Your task to perform on an android device: turn off translation in the chrome app Image 0: 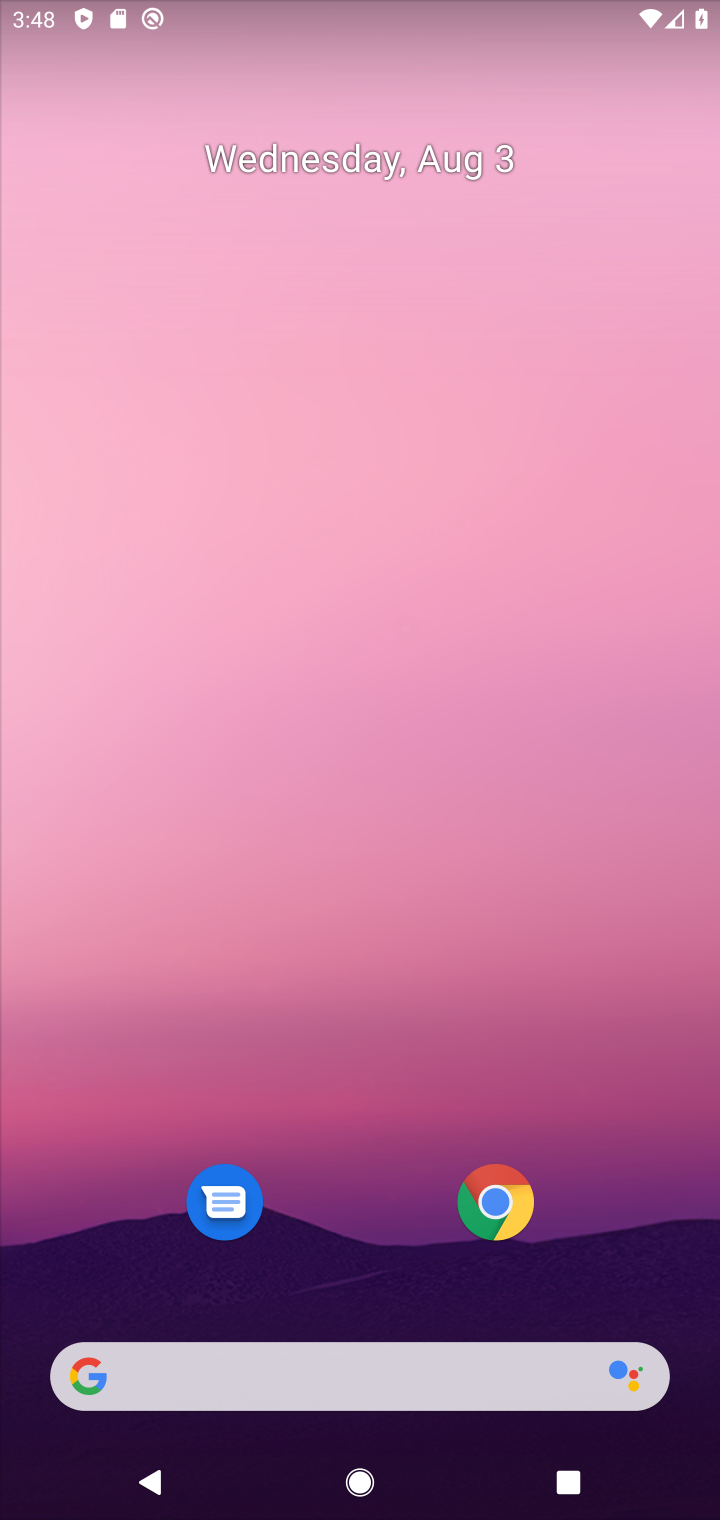
Step 0: click (480, 1199)
Your task to perform on an android device: turn off translation in the chrome app Image 1: 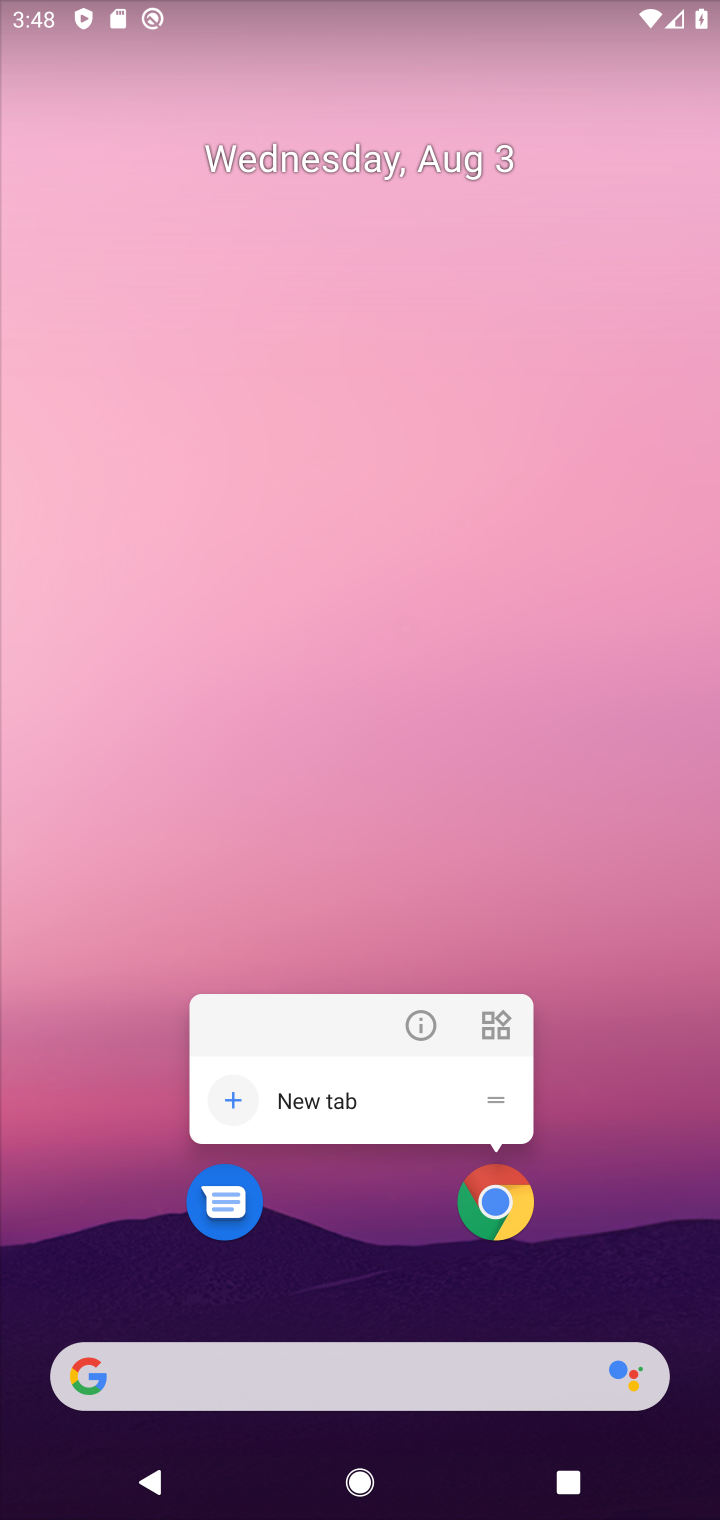
Step 1: click (457, 1185)
Your task to perform on an android device: turn off translation in the chrome app Image 2: 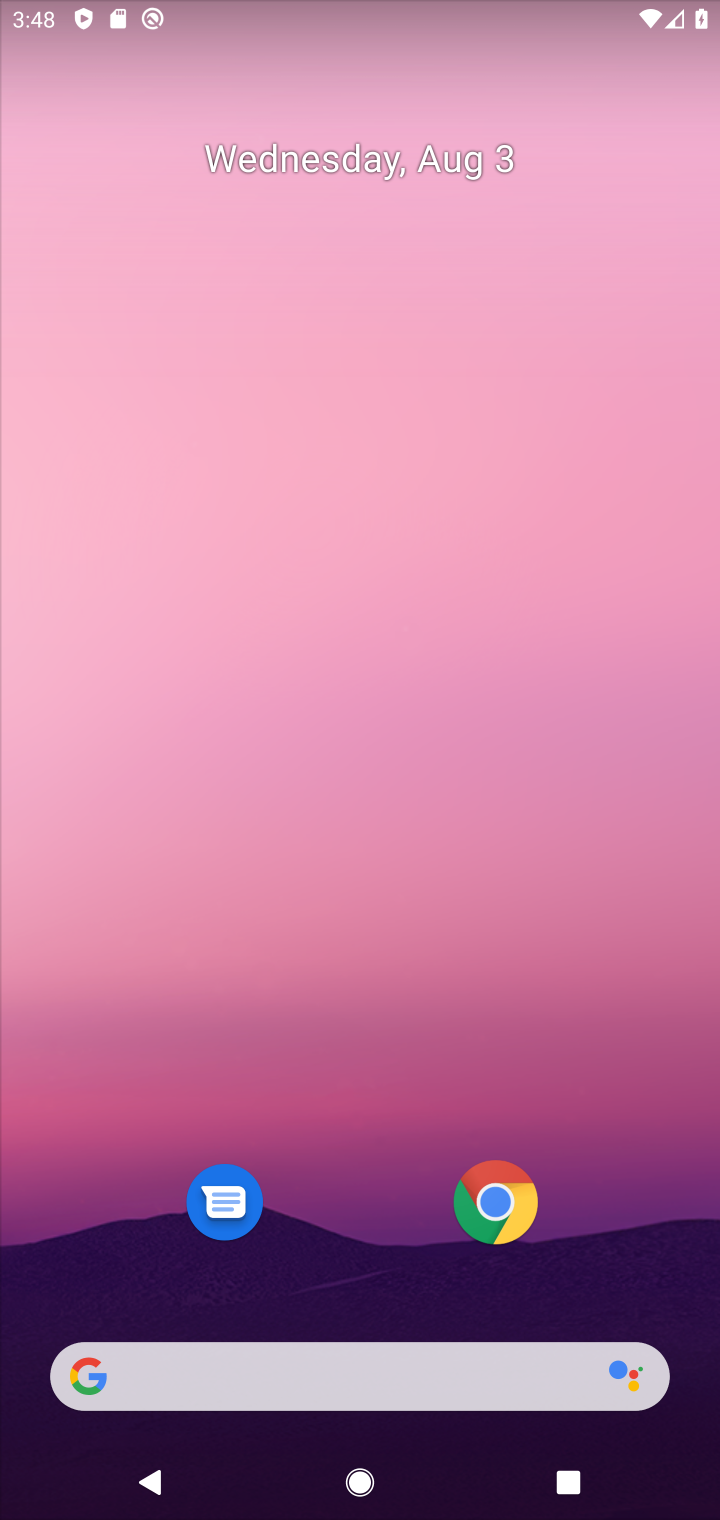
Step 2: click (497, 1192)
Your task to perform on an android device: turn off translation in the chrome app Image 3: 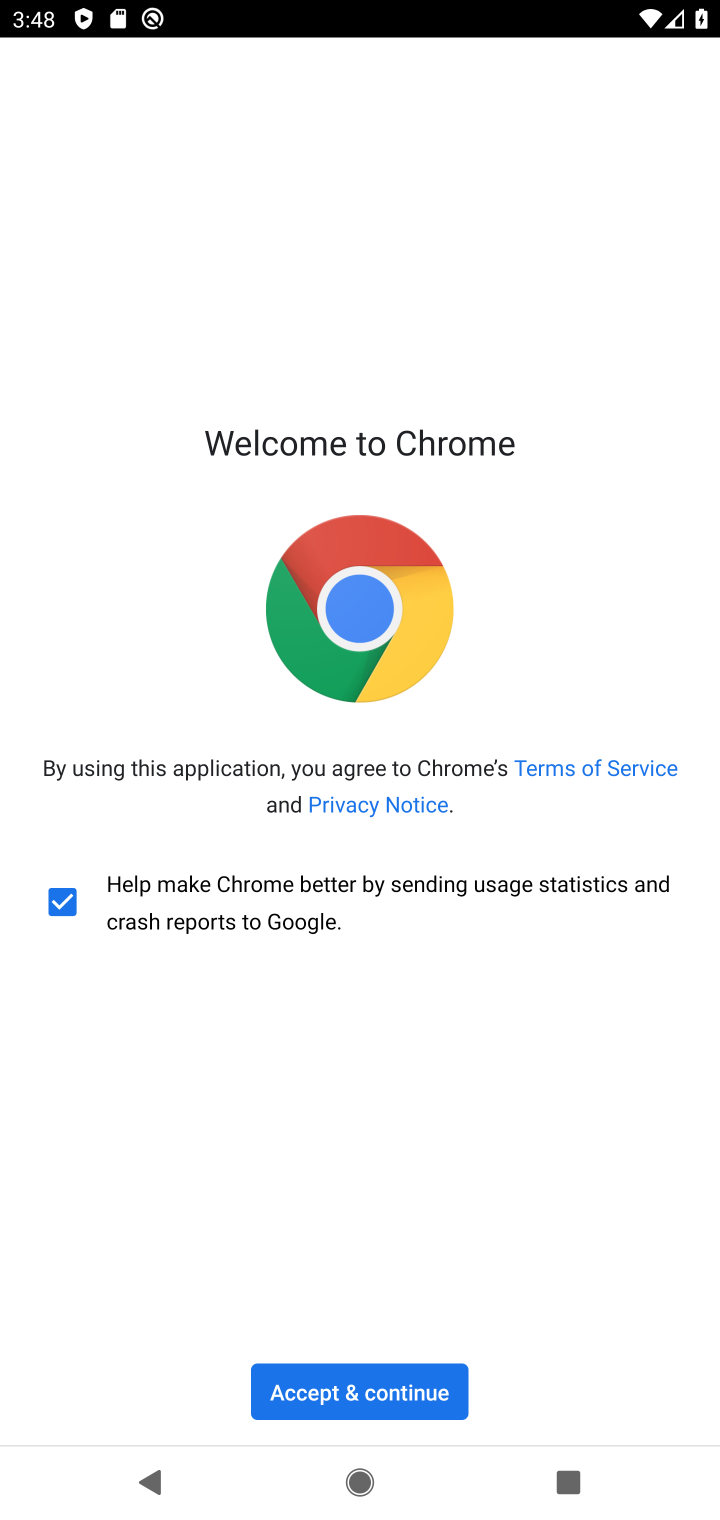
Step 3: click (321, 1357)
Your task to perform on an android device: turn off translation in the chrome app Image 4: 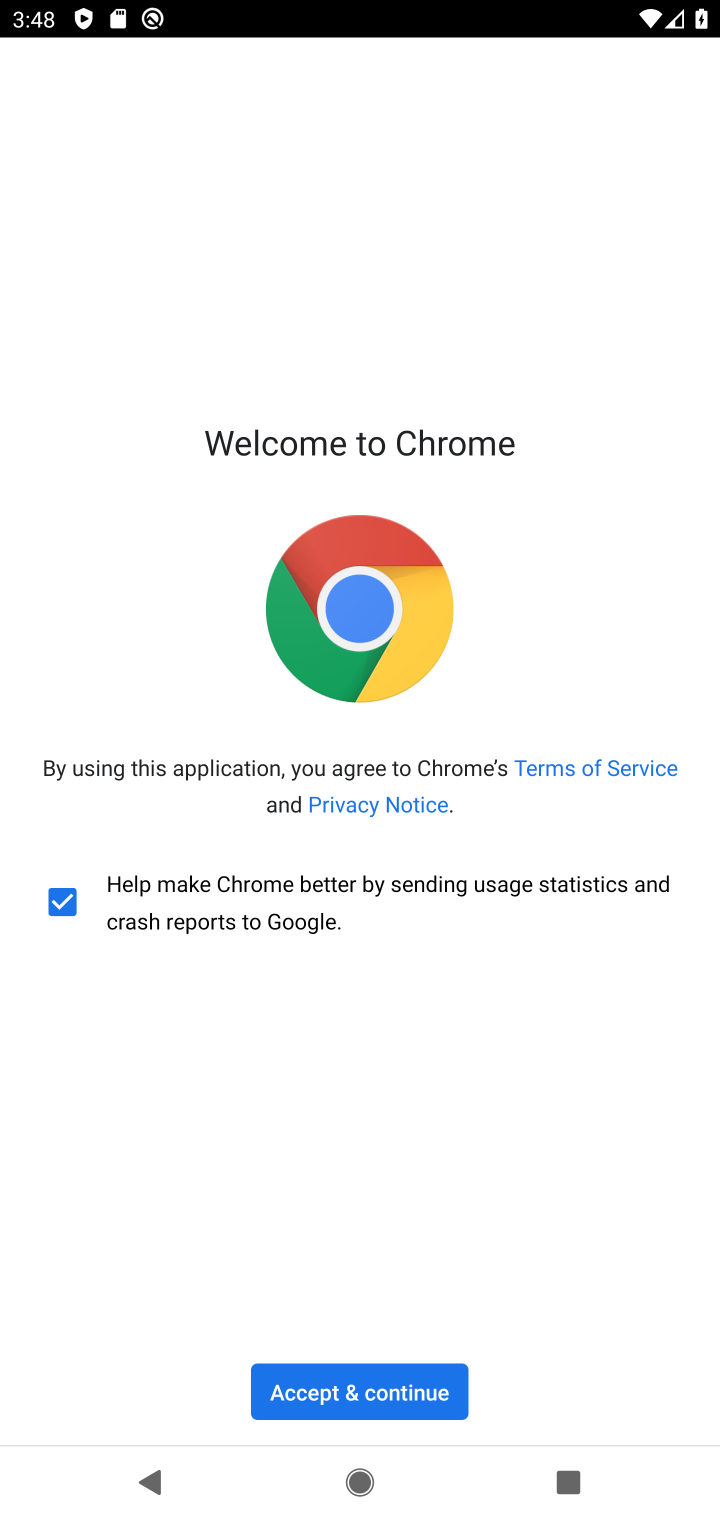
Step 4: click (323, 1386)
Your task to perform on an android device: turn off translation in the chrome app Image 5: 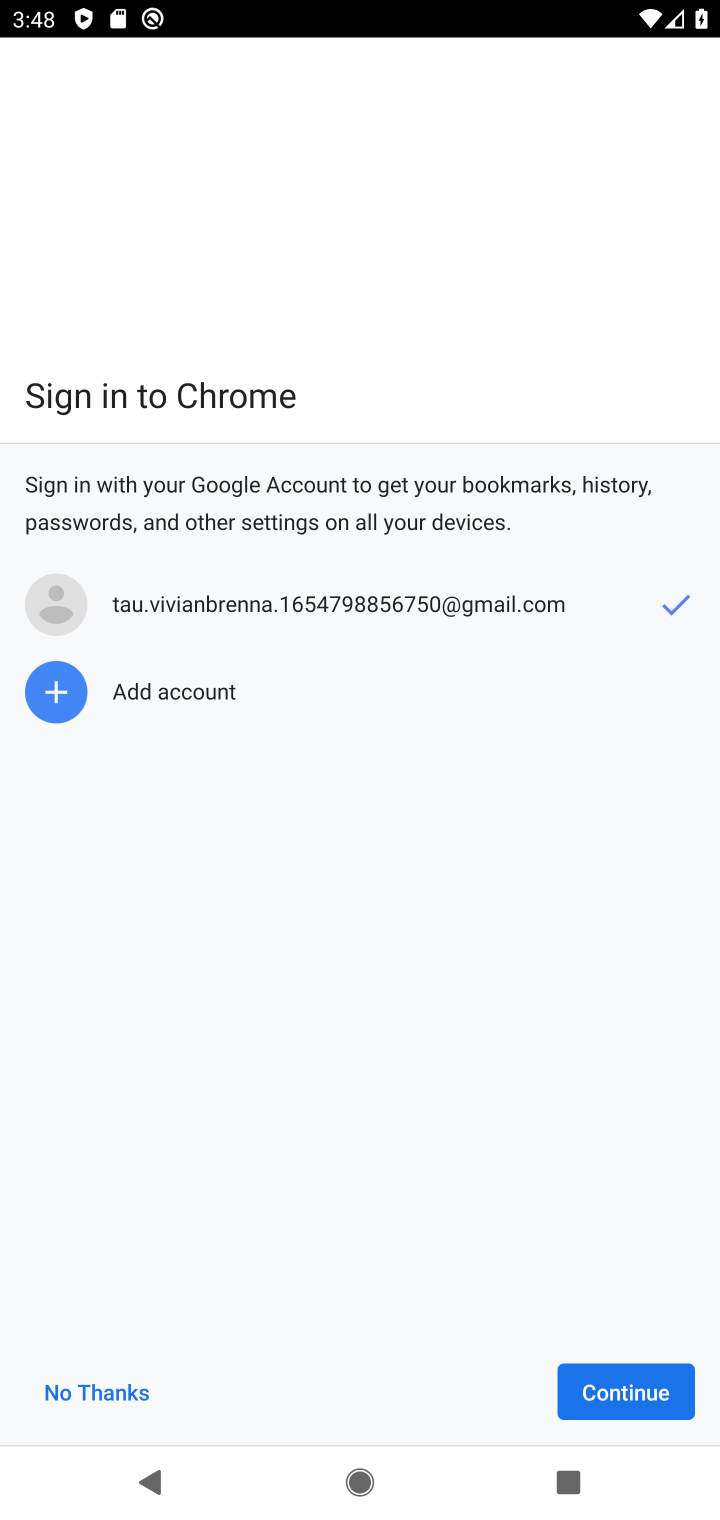
Step 5: click (640, 1385)
Your task to perform on an android device: turn off translation in the chrome app Image 6: 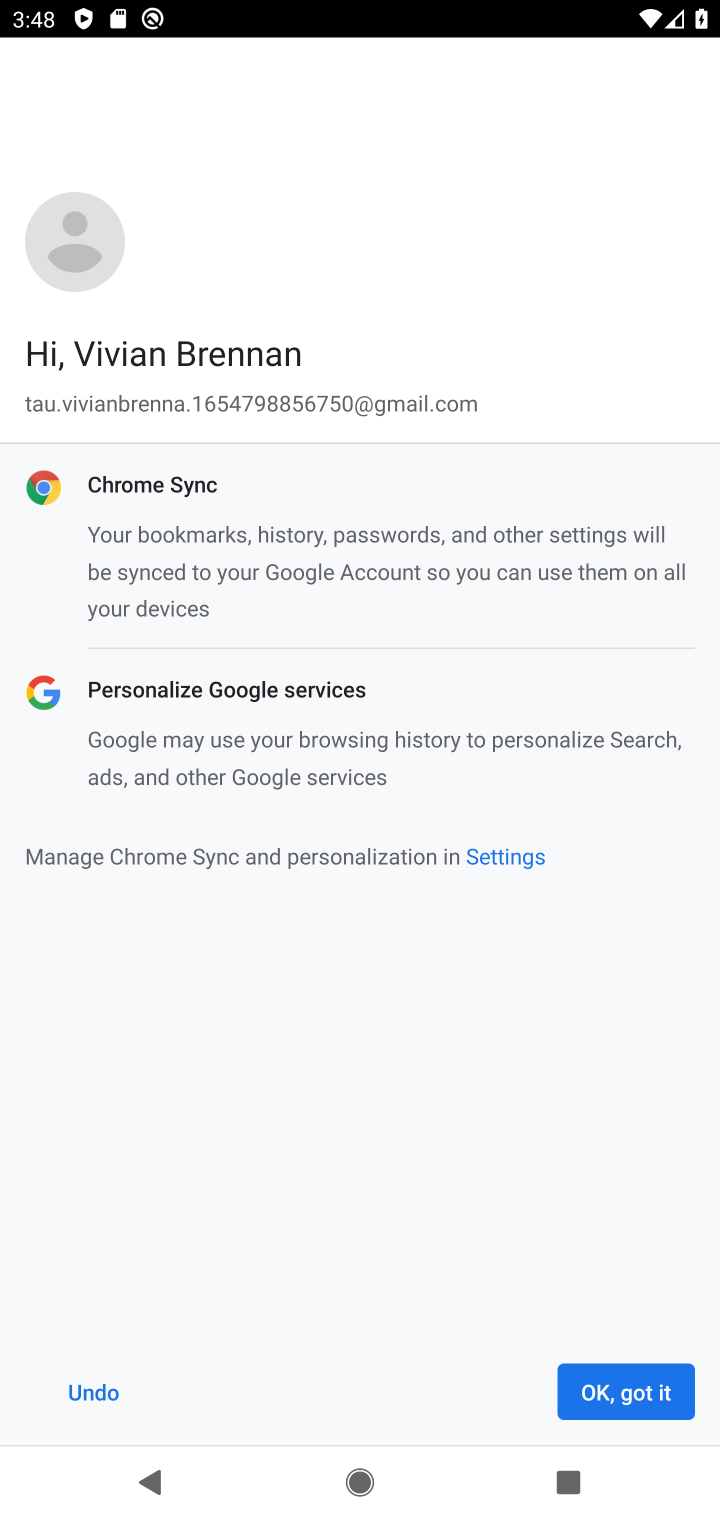
Step 6: click (639, 1405)
Your task to perform on an android device: turn off translation in the chrome app Image 7: 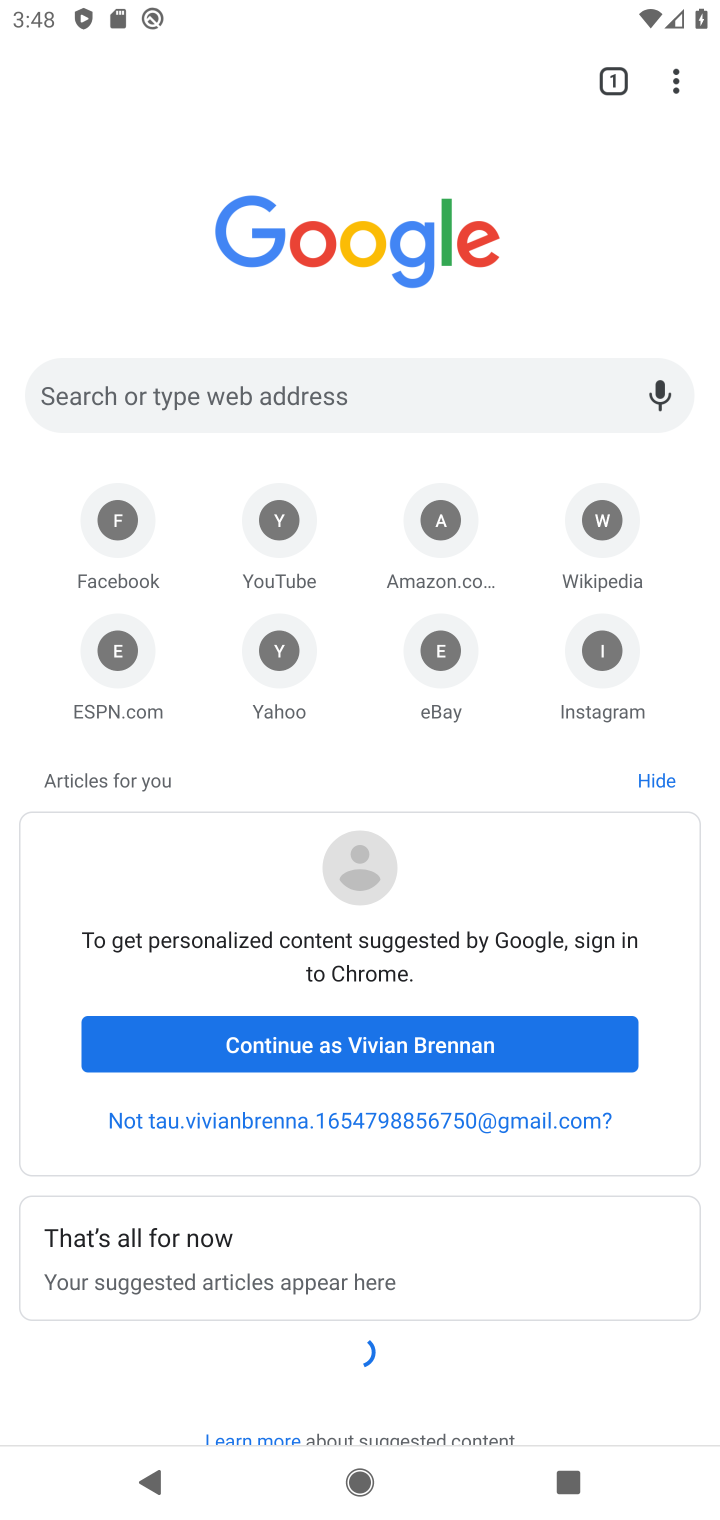
Step 7: drag from (672, 77) to (412, 675)
Your task to perform on an android device: turn off translation in the chrome app Image 8: 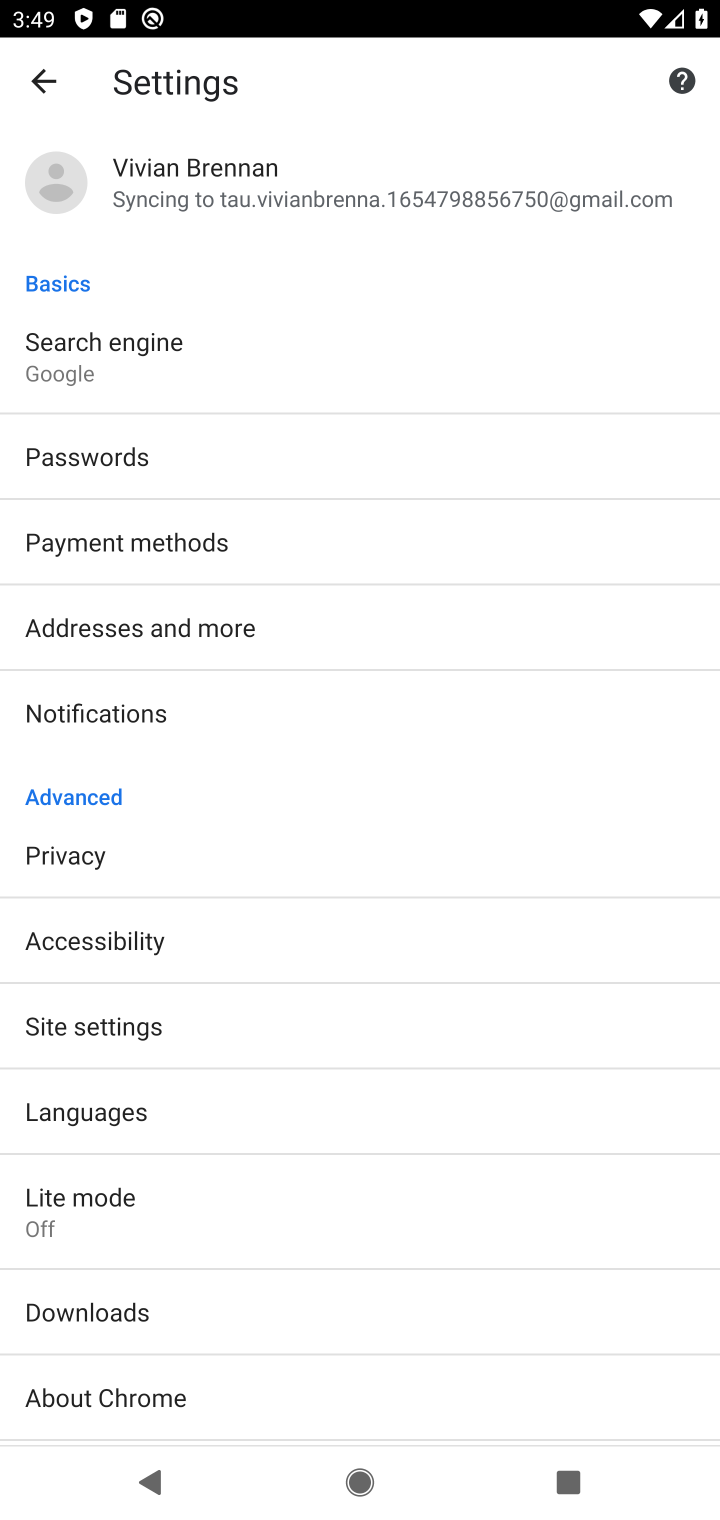
Step 8: click (104, 1116)
Your task to perform on an android device: turn off translation in the chrome app Image 9: 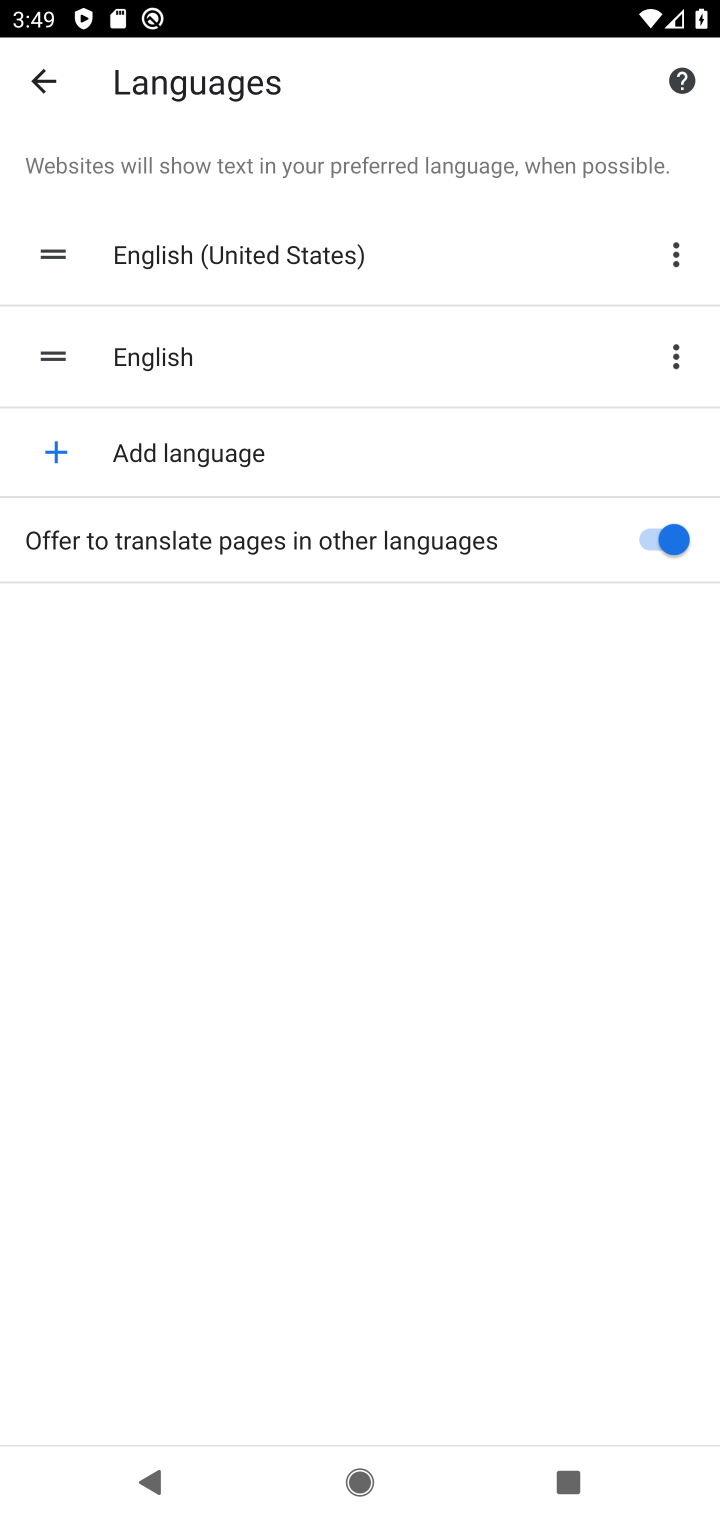
Step 9: click (675, 549)
Your task to perform on an android device: turn off translation in the chrome app Image 10: 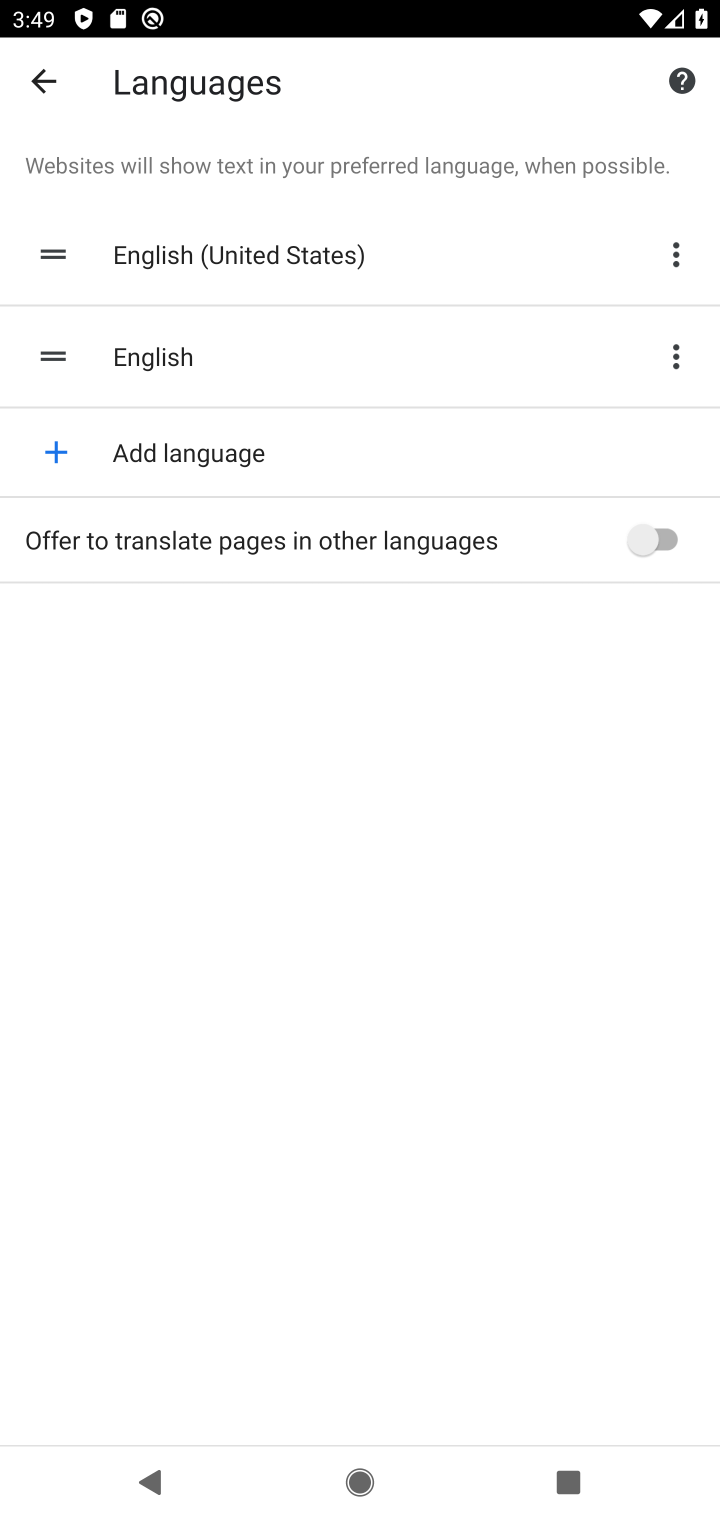
Step 10: task complete